Your task to perform on an android device: delete the emails in spam in the gmail app Image 0: 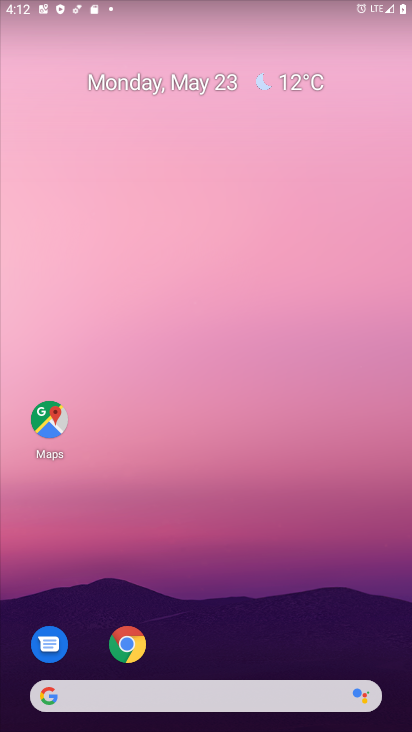
Step 0: drag from (249, 641) to (187, 125)
Your task to perform on an android device: delete the emails in spam in the gmail app Image 1: 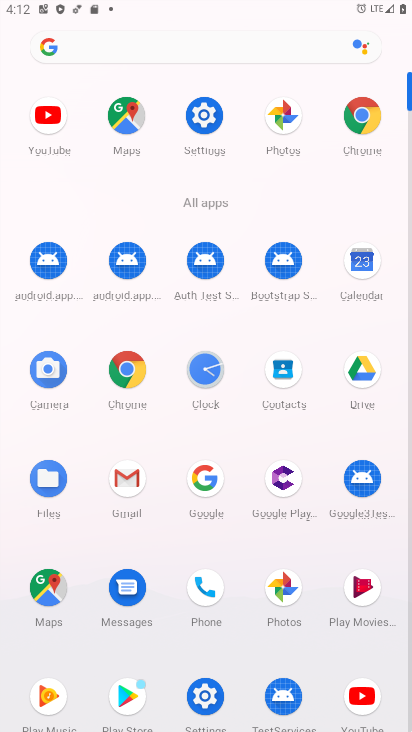
Step 1: click (128, 487)
Your task to perform on an android device: delete the emails in spam in the gmail app Image 2: 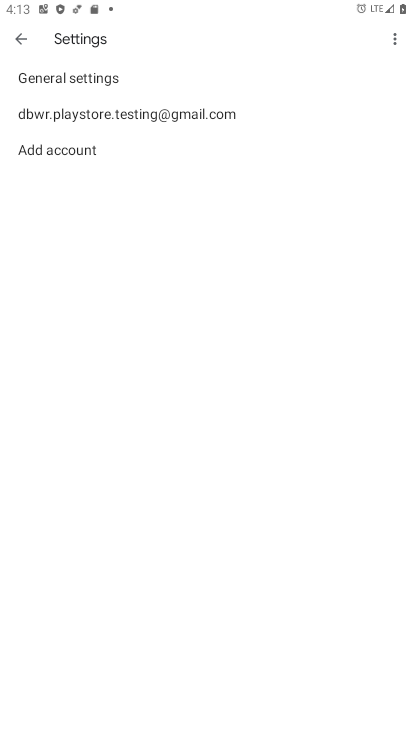
Step 2: click (212, 116)
Your task to perform on an android device: delete the emails in spam in the gmail app Image 3: 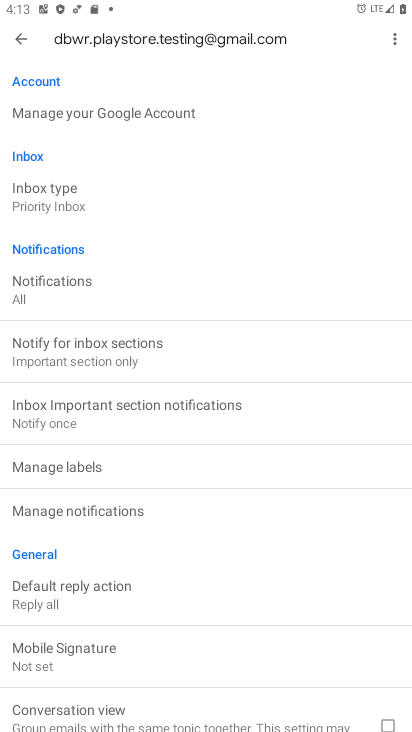
Step 3: click (20, 33)
Your task to perform on an android device: delete the emails in spam in the gmail app Image 4: 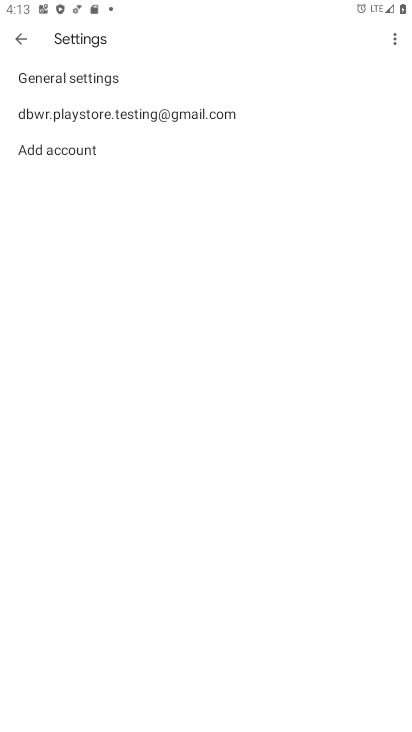
Step 4: click (20, 33)
Your task to perform on an android device: delete the emails in spam in the gmail app Image 5: 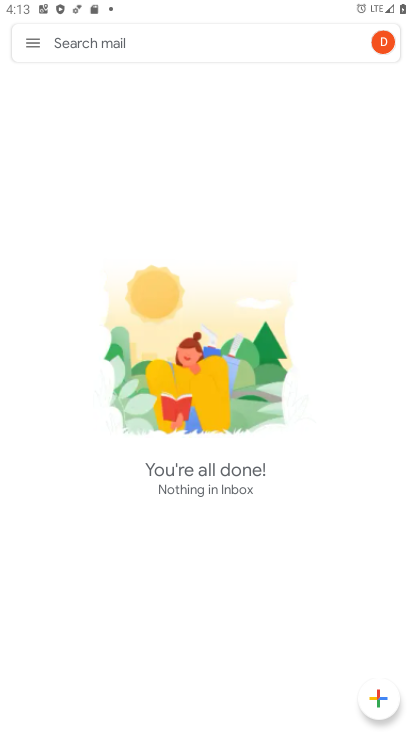
Step 5: click (20, 33)
Your task to perform on an android device: delete the emails in spam in the gmail app Image 6: 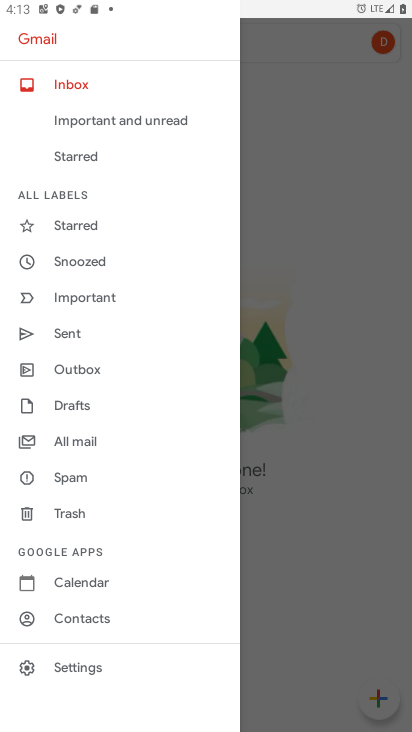
Step 6: click (100, 467)
Your task to perform on an android device: delete the emails in spam in the gmail app Image 7: 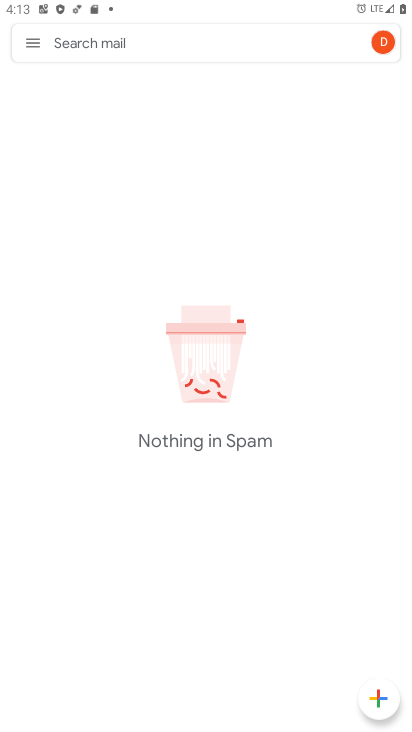
Step 7: task complete